Your task to perform on an android device: open a bookmark in the chrome app Image 0: 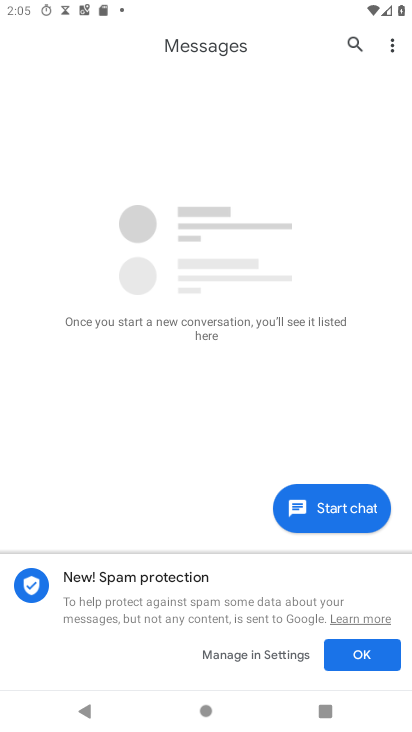
Step 0: click (348, 659)
Your task to perform on an android device: open a bookmark in the chrome app Image 1: 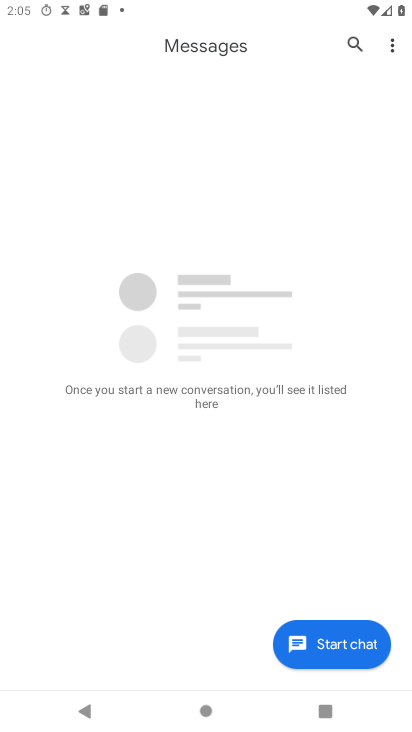
Step 1: task complete